Your task to perform on an android device: change the clock display to show seconds Image 0: 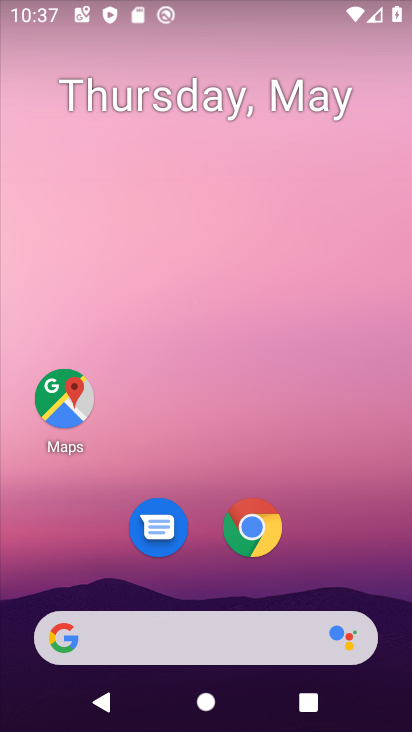
Step 0: drag from (329, 530) to (272, 67)
Your task to perform on an android device: change the clock display to show seconds Image 1: 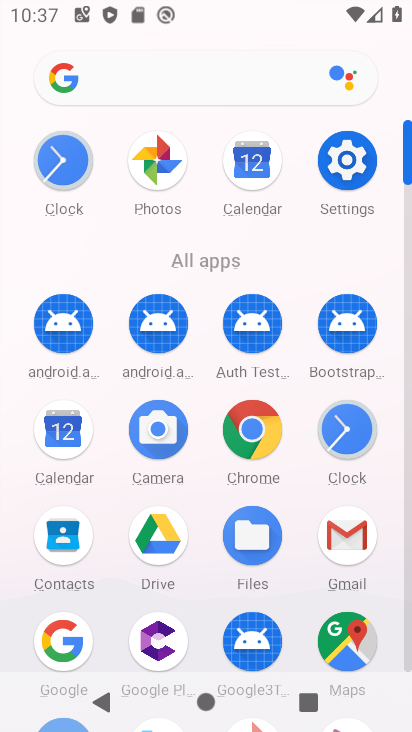
Step 1: click (342, 442)
Your task to perform on an android device: change the clock display to show seconds Image 2: 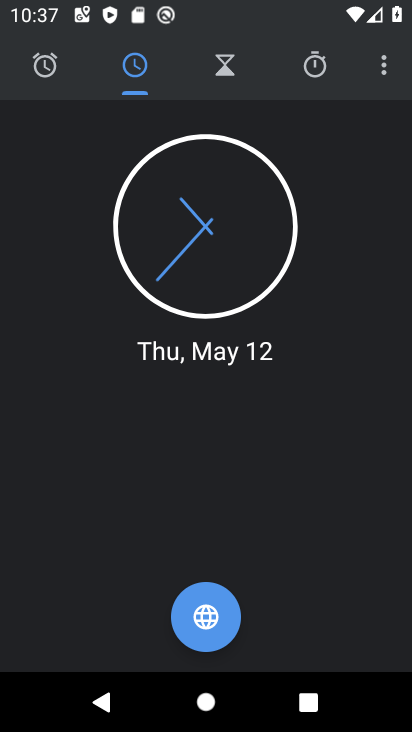
Step 2: click (382, 60)
Your task to perform on an android device: change the clock display to show seconds Image 3: 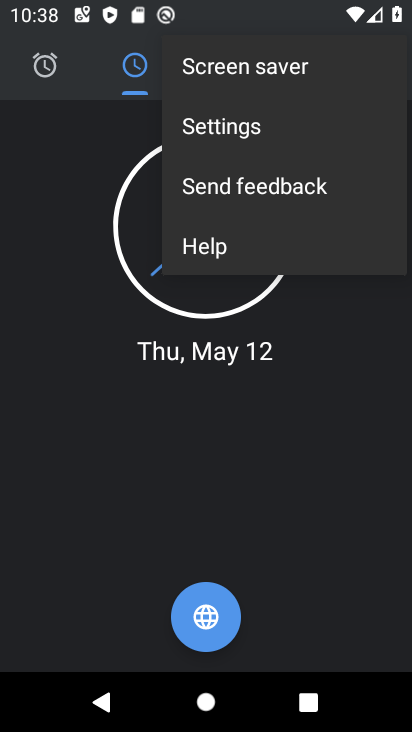
Step 3: click (229, 134)
Your task to perform on an android device: change the clock display to show seconds Image 4: 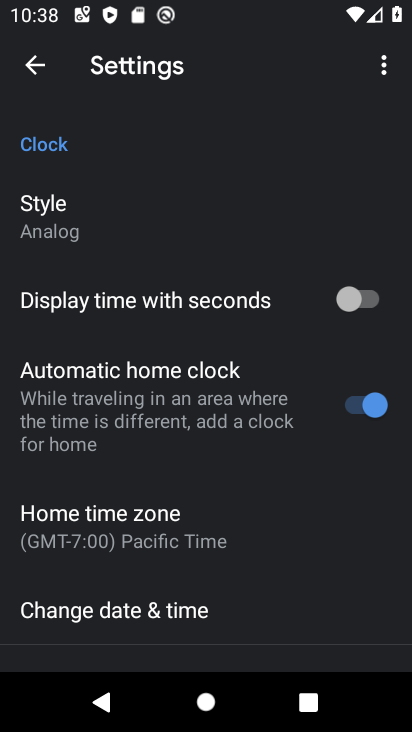
Step 4: click (350, 299)
Your task to perform on an android device: change the clock display to show seconds Image 5: 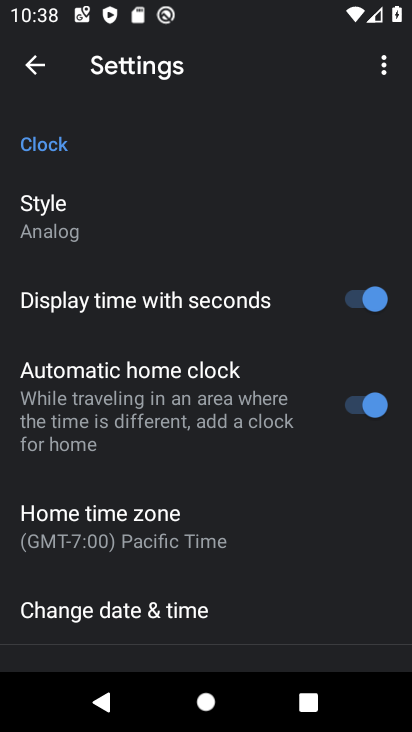
Step 5: task complete